Your task to perform on an android device: Go to display settings Image 0: 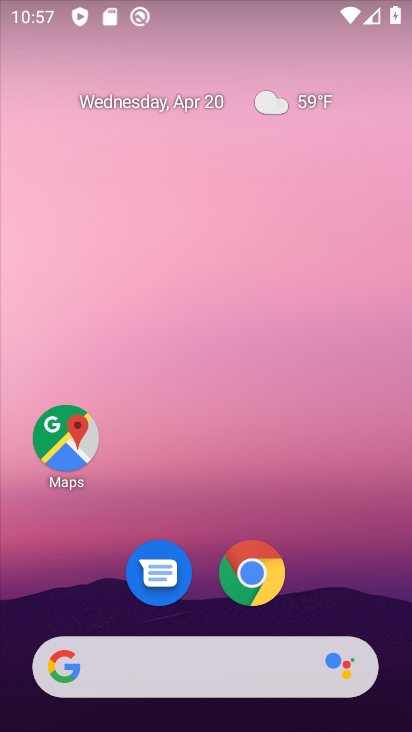
Step 0: drag from (362, 618) to (391, 11)
Your task to perform on an android device: Go to display settings Image 1: 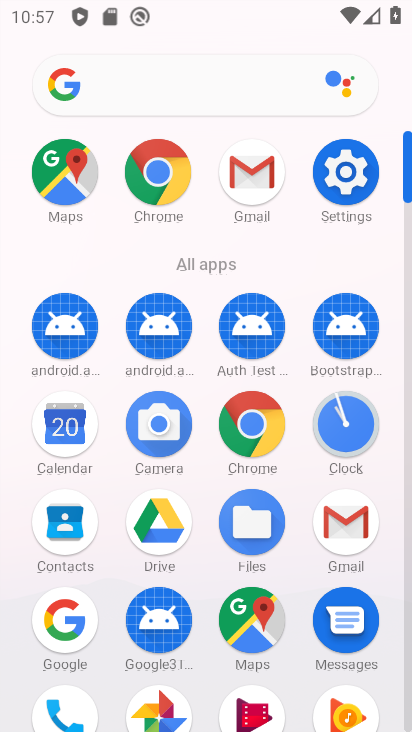
Step 1: click (347, 185)
Your task to perform on an android device: Go to display settings Image 2: 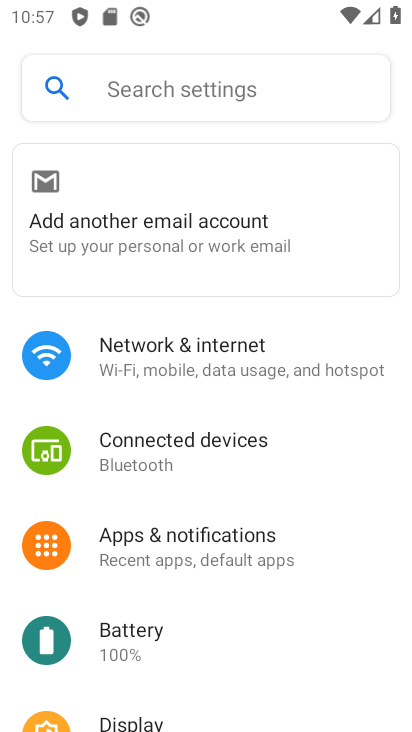
Step 2: drag from (377, 629) to (371, 450)
Your task to perform on an android device: Go to display settings Image 3: 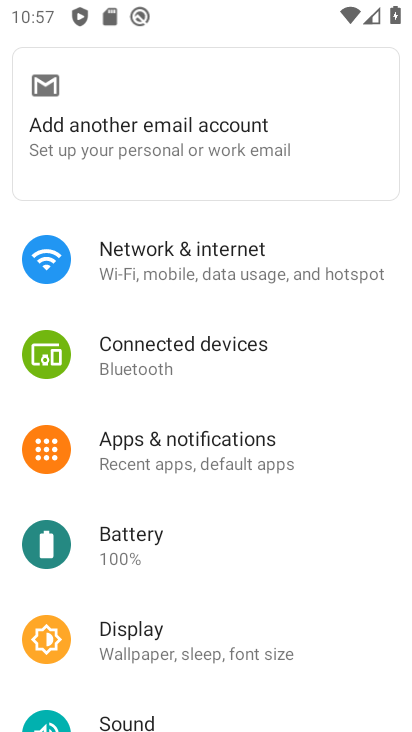
Step 3: click (117, 649)
Your task to perform on an android device: Go to display settings Image 4: 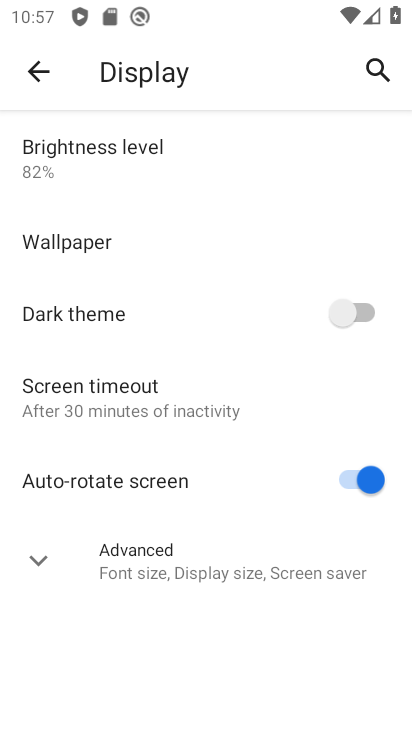
Step 4: click (23, 560)
Your task to perform on an android device: Go to display settings Image 5: 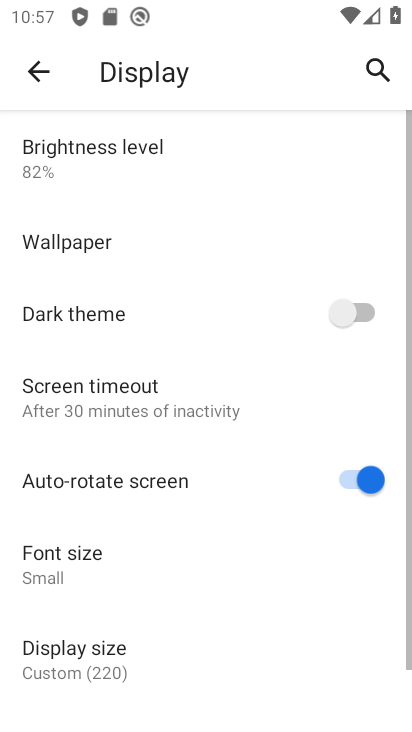
Step 5: task complete